Your task to perform on an android device: stop showing notifications on the lock screen Image 0: 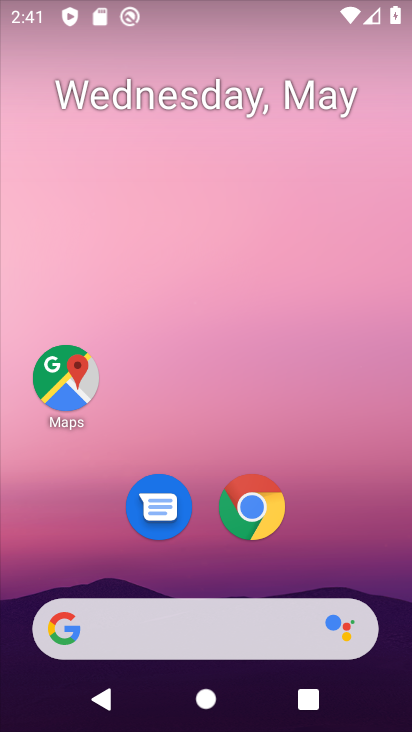
Step 0: drag from (208, 551) to (228, 62)
Your task to perform on an android device: stop showing notifications on the lock screen Image 1: 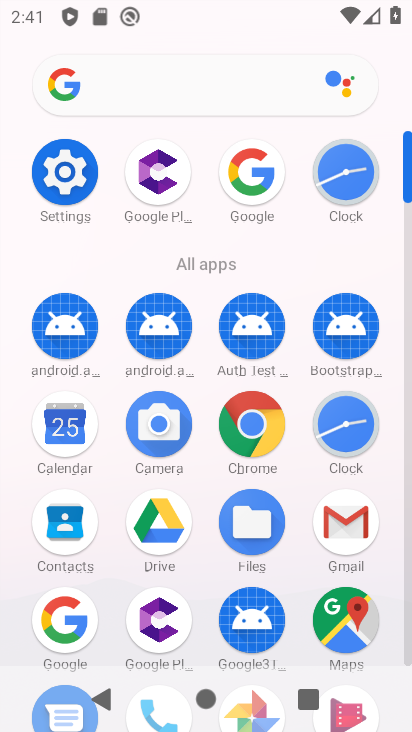
Step 1: click (66, 176)
Your task to perform on an android device: stop showing notifications on the lock screen Image 2: 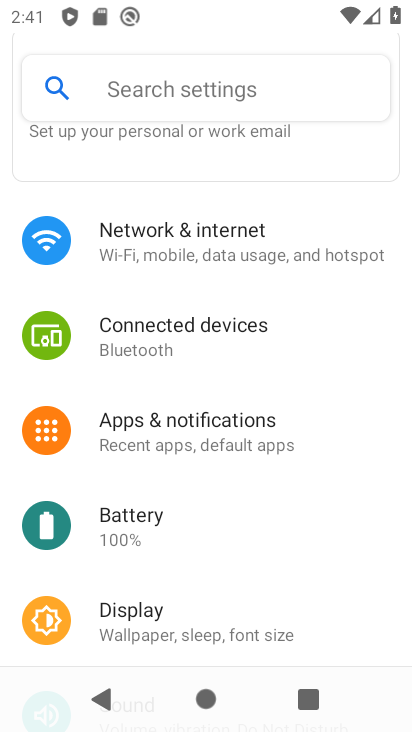
Step 2: click (183, 421)
Your task to perform on an android device: stop showing notifications on the lock screen Image 3: 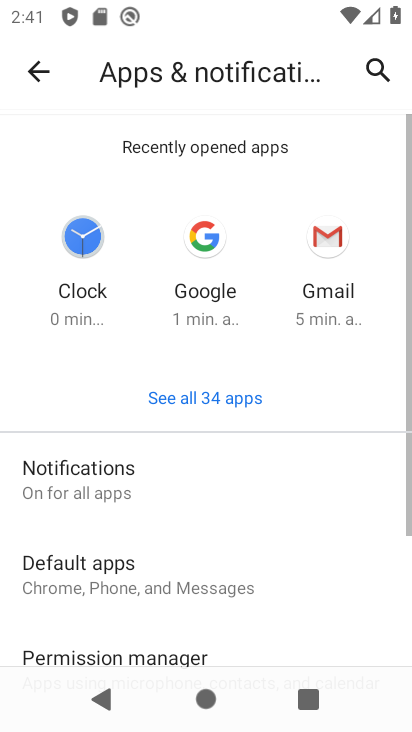
Step 3: click (113, 472)
Your task to perform on an android device: stop showing notifications on the lock screen Image 4: 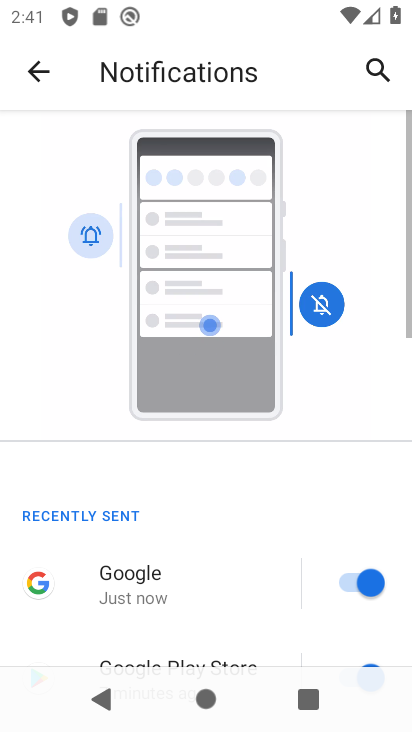
Step 4: drag from (188, 570) to (245, 130)
Your task to perform on an android device: stop showing notifications on the lock screen Image 5: 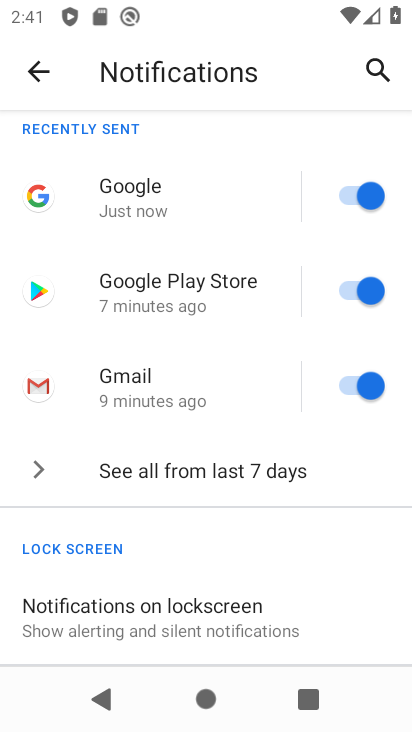
Step 5: click (163, 622)
Your task to perform on an android device: stop showing notifications on the lock screen Image 6: 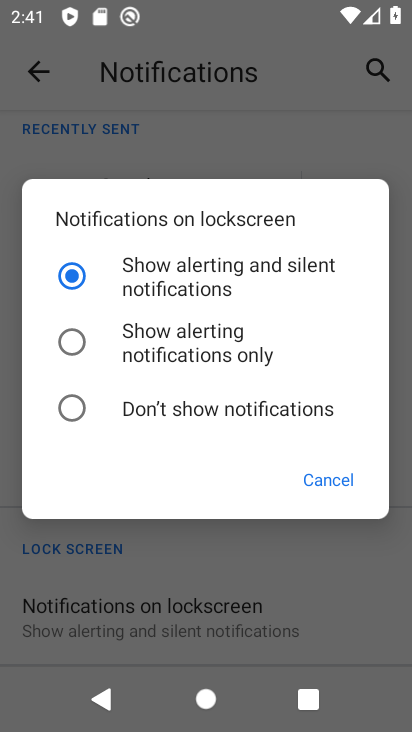
Step 6: click (83, 403)
Your task to perform on an android device: stop showing notifications on the lock screen Image 7: 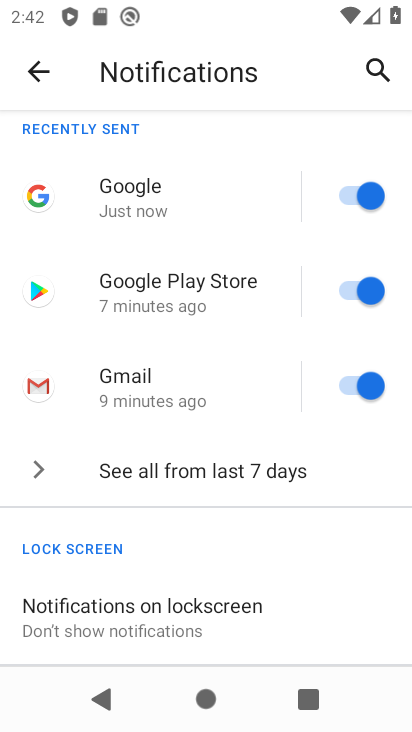
Step 7: task complete